Your task to perform on an android device: check data usage Image 0: 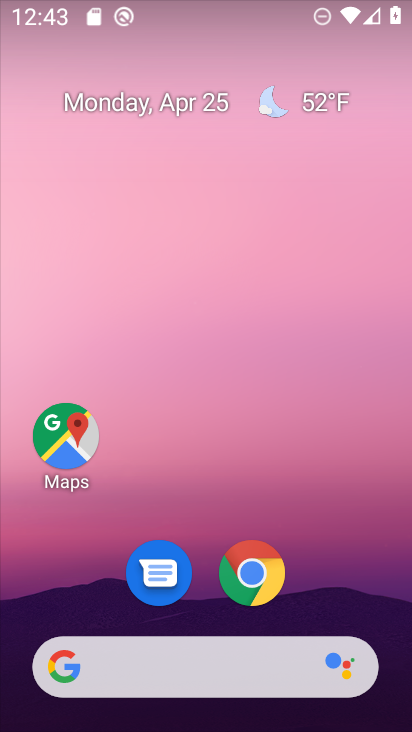
Step 0: drag from (255, 727) to (246, 149)
Your task to perform on an android device: check data usage Image 1: 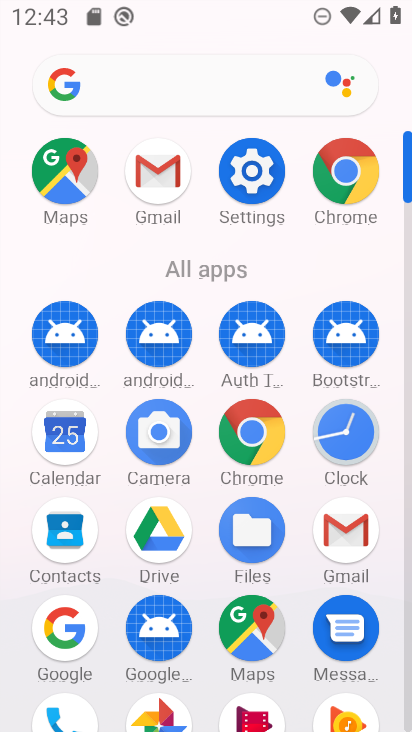
Step 1: click (252, 174)
Your task to perform on an android device: check data usage Image 2: 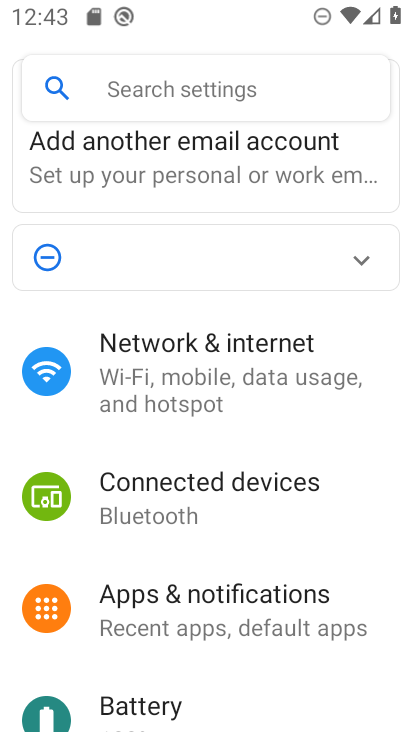
Step 2: click (159, 374)
Your task to perform on an android device: check data usage Image 3: 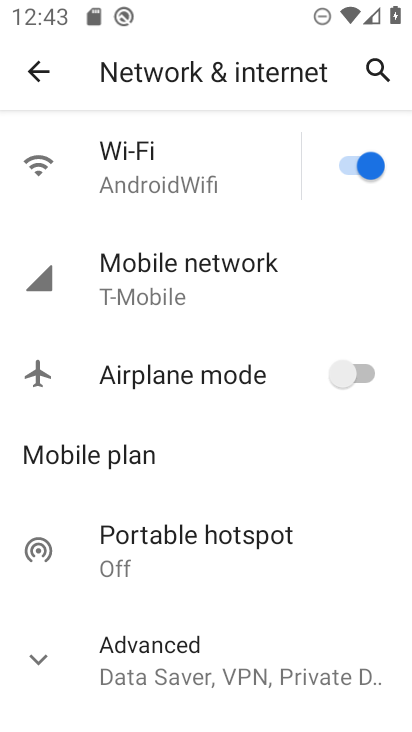
Step 3: click (142, 273)
Your task to perform on an android device: check data usage Image 4: 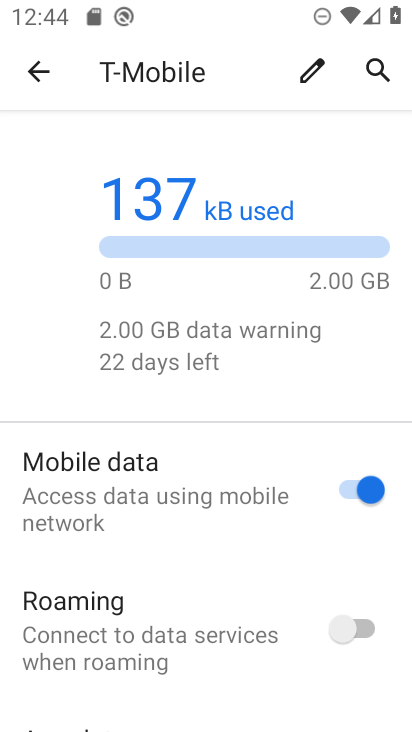
Step 4: drag from (165, 657) to (146, 263)
Your task to perform on an android device: check data usage Image 5: 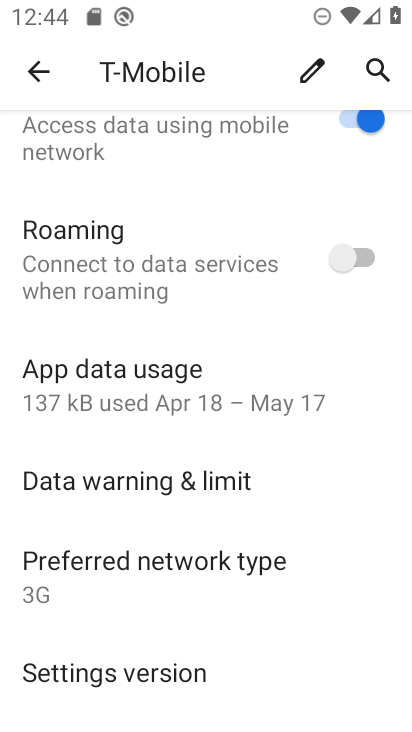
Step 5: click (130, 392)
Your task to perform on an android device: check data usage Image 6: 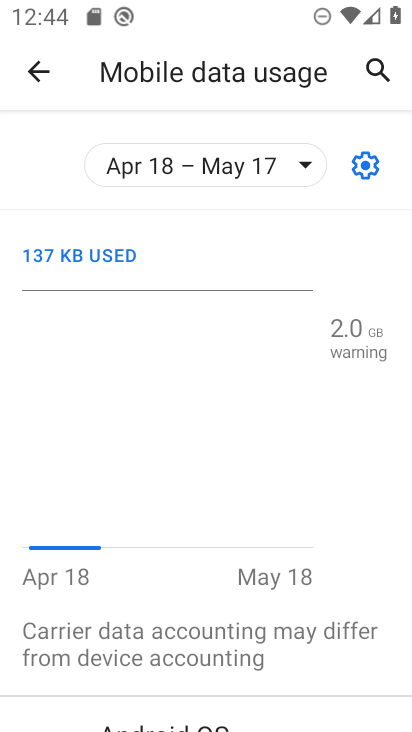
Step 6: task complete